Your task to perform on an android device: Open battery settings Image 0: 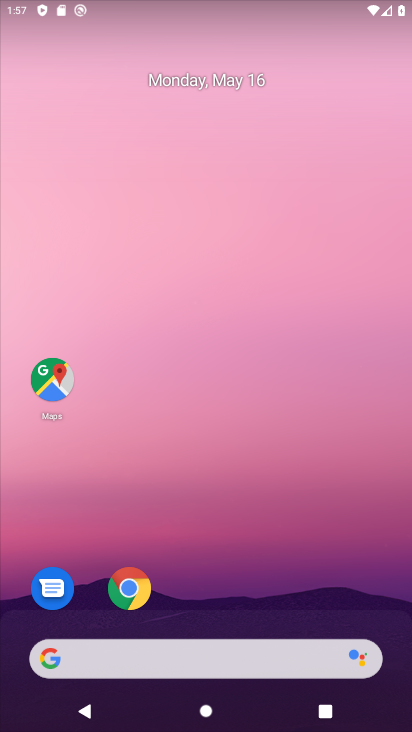
Step 0: drag from (233, 564) to (187, 108)
Your task to perform on an android device: Open battery settings Image 1: 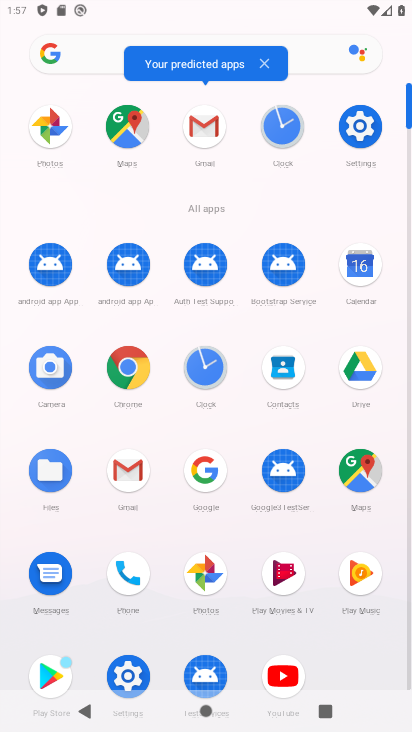
Step 1: click (358, 127)
Your task to perform on an android device: Open battery settings Image 2: 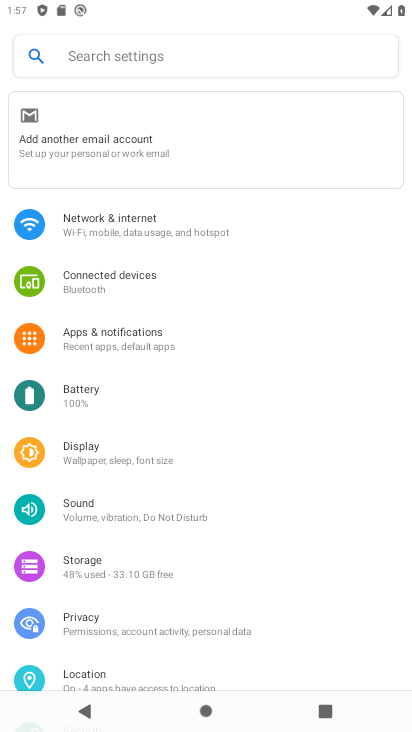
Step 2: drag from (111, 596) to (108, 443)
Your task to perform on an android device: Open battery settings Image 3: 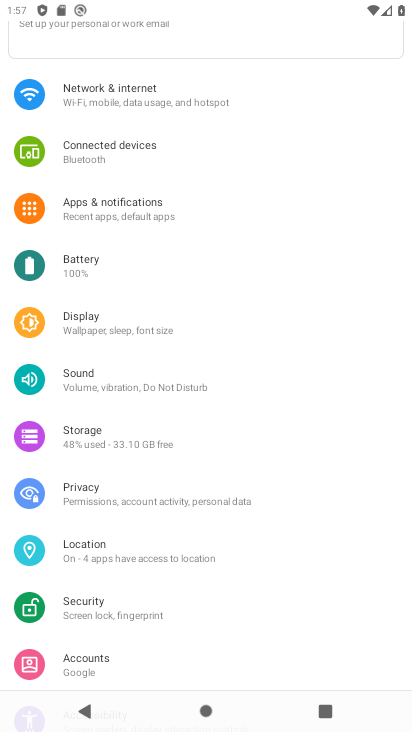
Step 3: click (69, 268)
Your task to perform on an android device: Open battery settings Image 4: 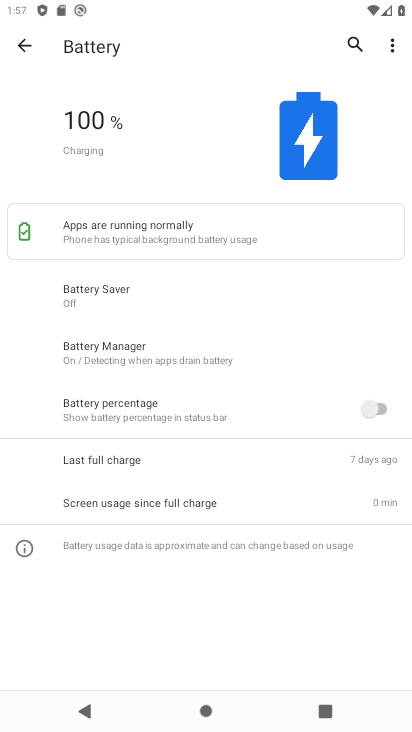
Step 4: task complete